Your task to perform on an android device: read, delete, or share a saved page in the chrome app Image 0: 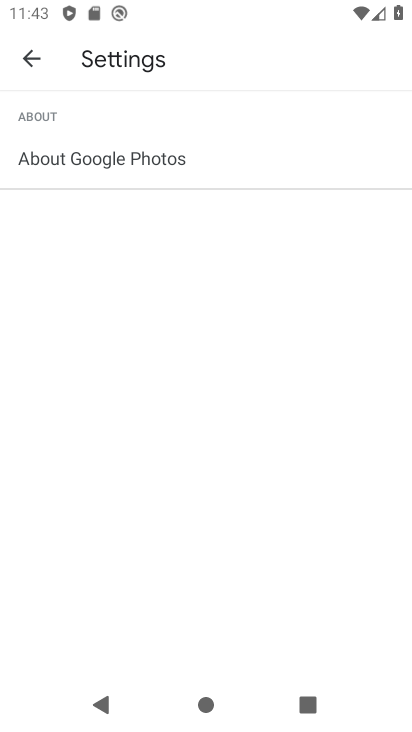
Step 0: press home button
Your task to perform on an android device: read, delete, or share a saved page in the chrome app Image 1: 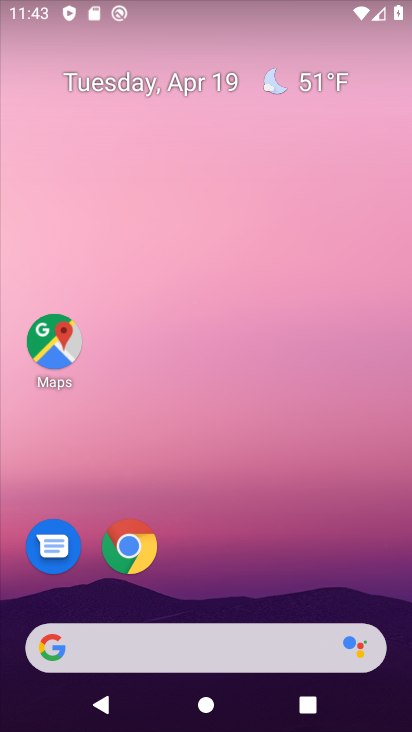
Step 1: click (132, 539)
Your task to perform on an android device: read, delete, or share a saved page in the chrome app Image 2: 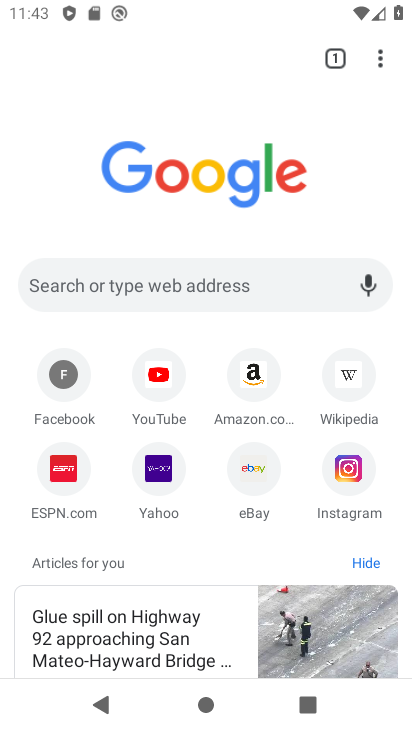
Step 2: click (381, 55)
Your task to perform on an android device: read, delete, or share a saved page in the chrome app Image 3: 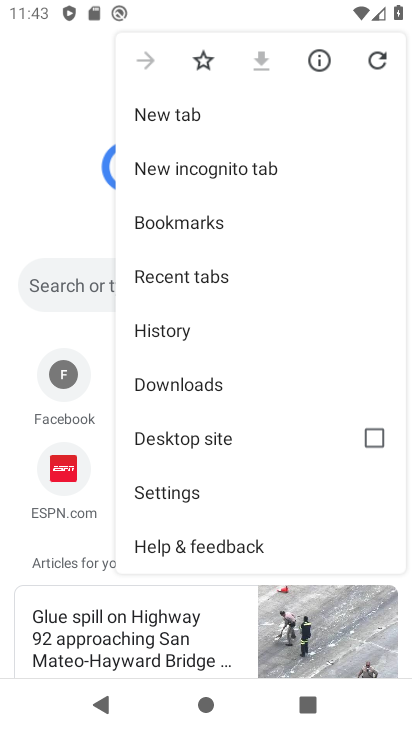
Step 3: click (187, 384)
Your task to perform on an android device: read, delete, or share a saved page in the chrome app Image 4: 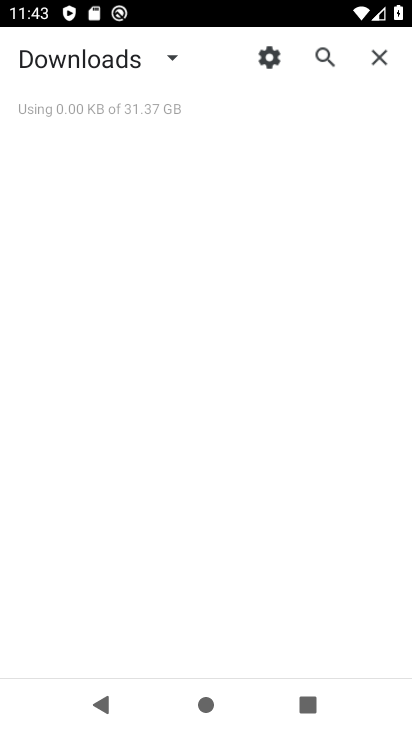
Step 4: click (173, 55)
Your task to perform on an android device: read, delete, or share a saved page in the chrome app Image 5: 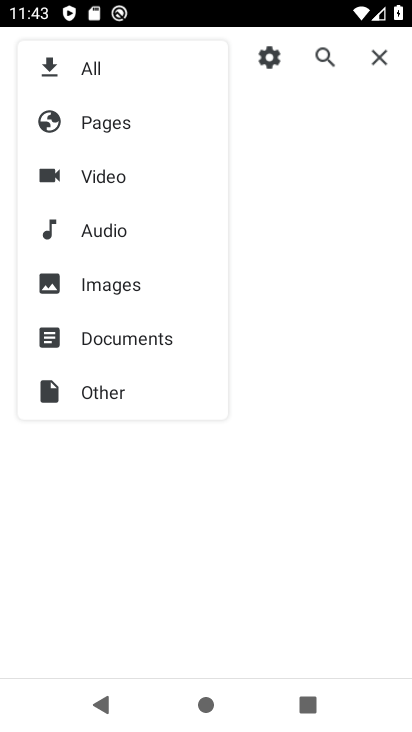
Step 5: click (124, 120)
Your task to perform on an android device: read, delete, or share a saved page in the chrome app Image 6: 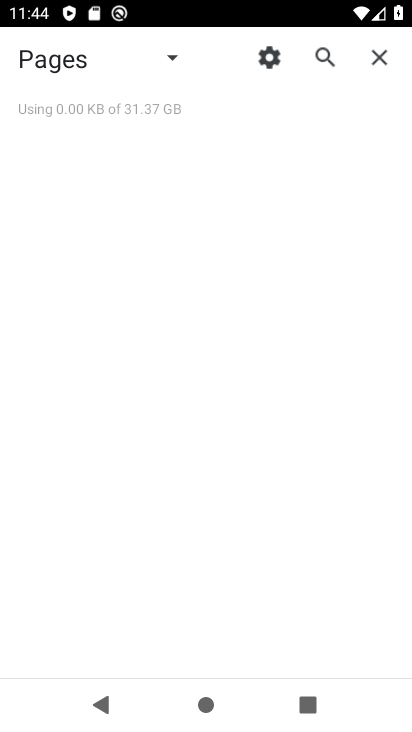
Step 6: task complete